Your task to perform on an android device: open device folders in google photos Image 0: 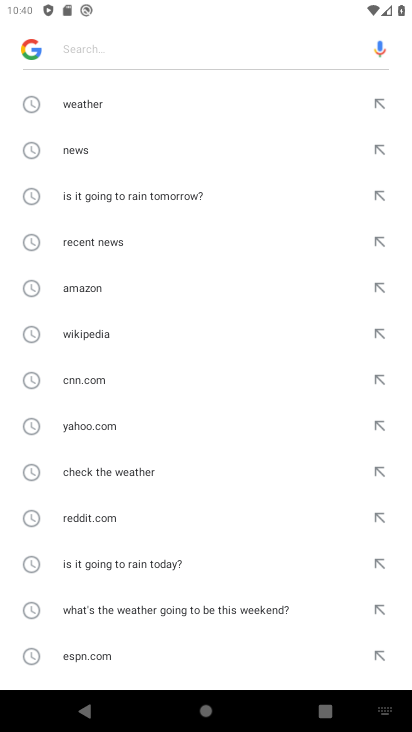
Step 0: press back button
Your task to perform on an android device: open device folders in google photos Image 1: 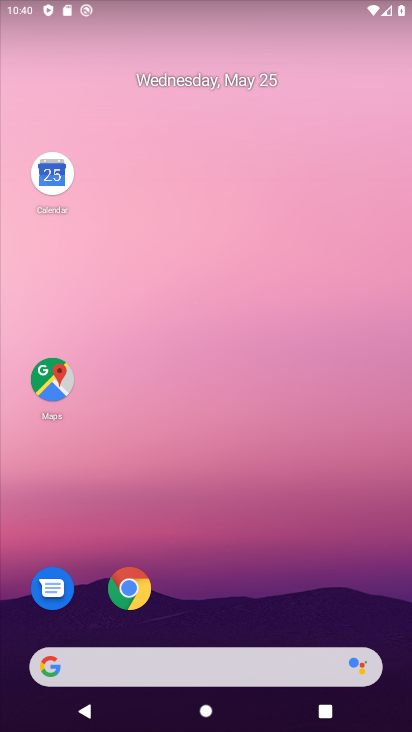
Step 1: drag from (225, 547) to (321, 60)
Your task to perform on an android device: open device folders in google photos Image 2: 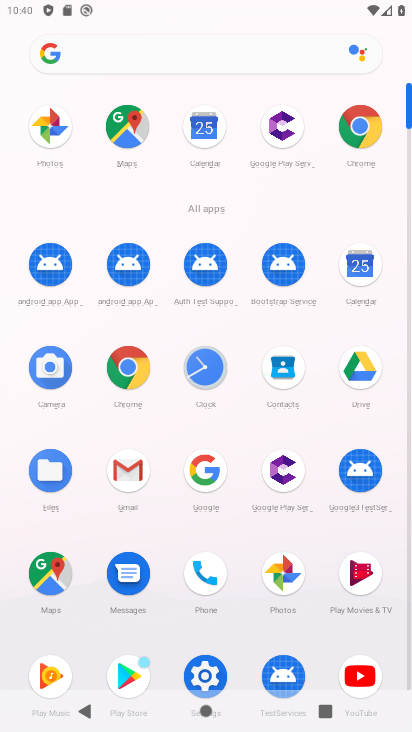
Step 2: drag from (44, 111) to (148, 241)
Your task to perform on an android device: open device folders in google photos Image 3: 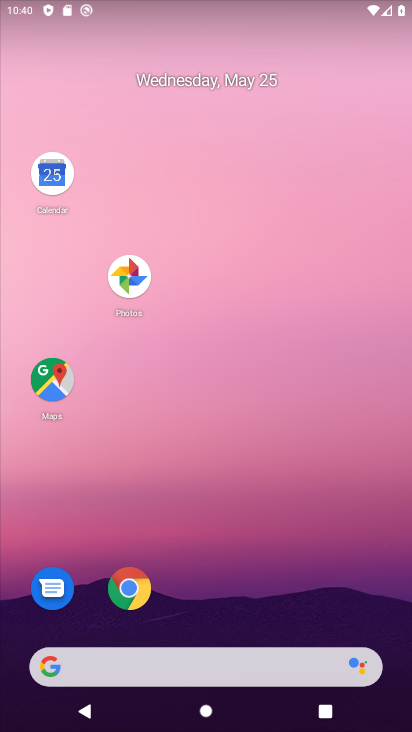
Step 3: click (138, 282)
Your task to perform on an android device: open device folders in google photos Image 4: 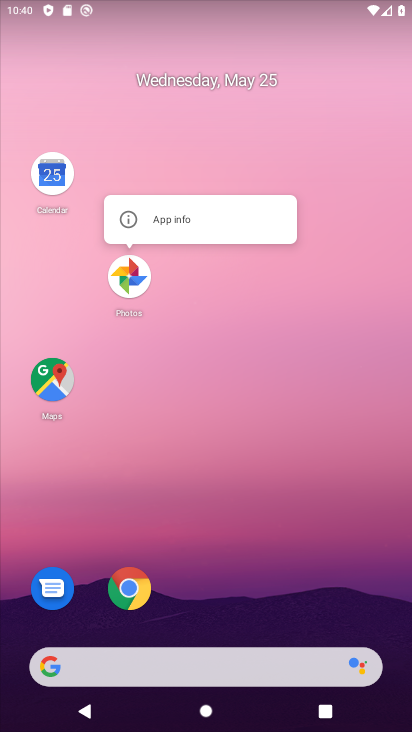
Step 4: click (138, 282)
Your task to perform on an android device: open device folders in google photos Image 5: 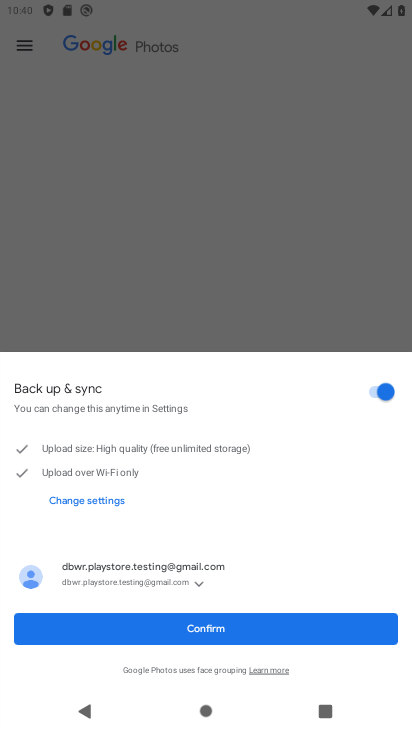
Step 5: click (27, 47)
Your task to perform on an android device: open device folders in google photos Image 6: 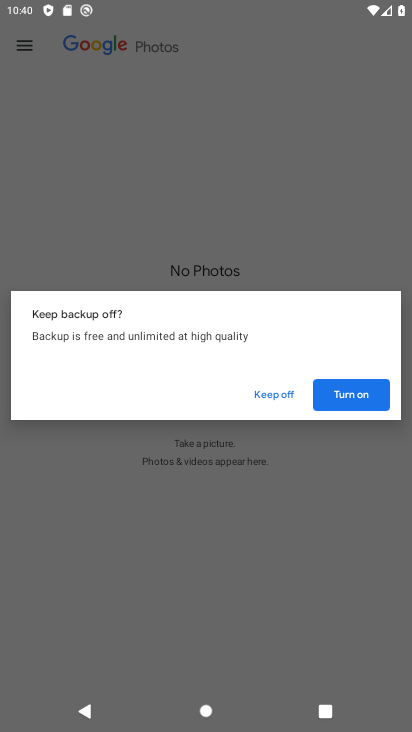
Step 6: click (331, 391)
Your task to perform on an android device: open device folders in google photos Image 7: 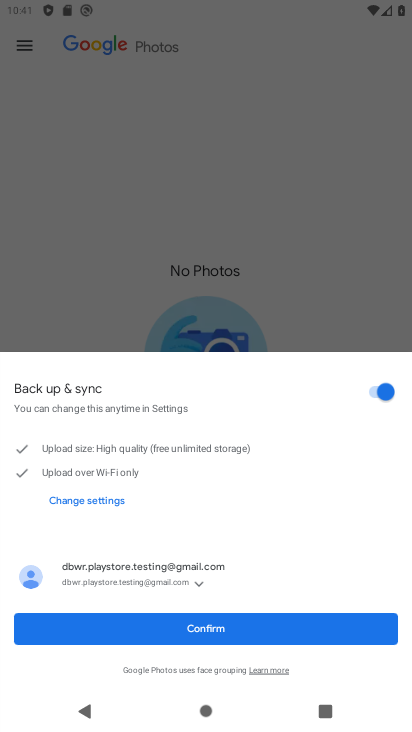
Step 7: click (272, 616)
Your task to perform on an android device: open device folders in google photos Image 8: 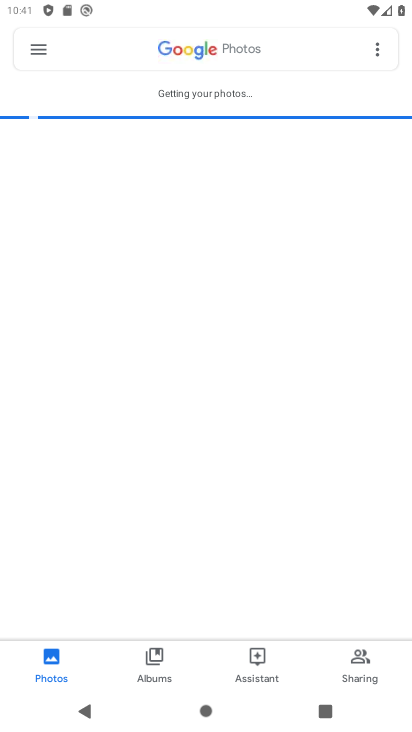
Step 8: click (20, 42)
Your task to perform on an android device: open device folders in google photos Image 9: 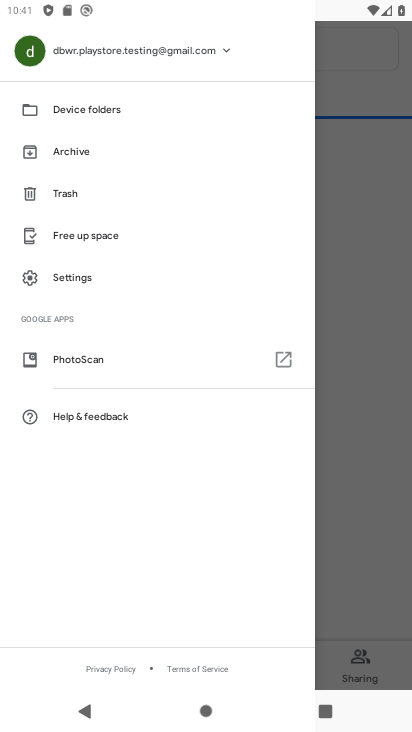
Step 9: click (102, 103)
Your task to perform on an android device: open device folders in google photos Image 10: 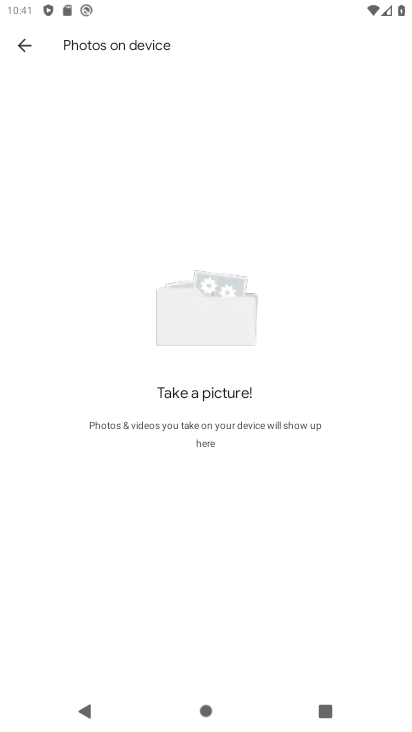
Step 10: task complete